Your task to perform on an android device: change the clock style Image 0: 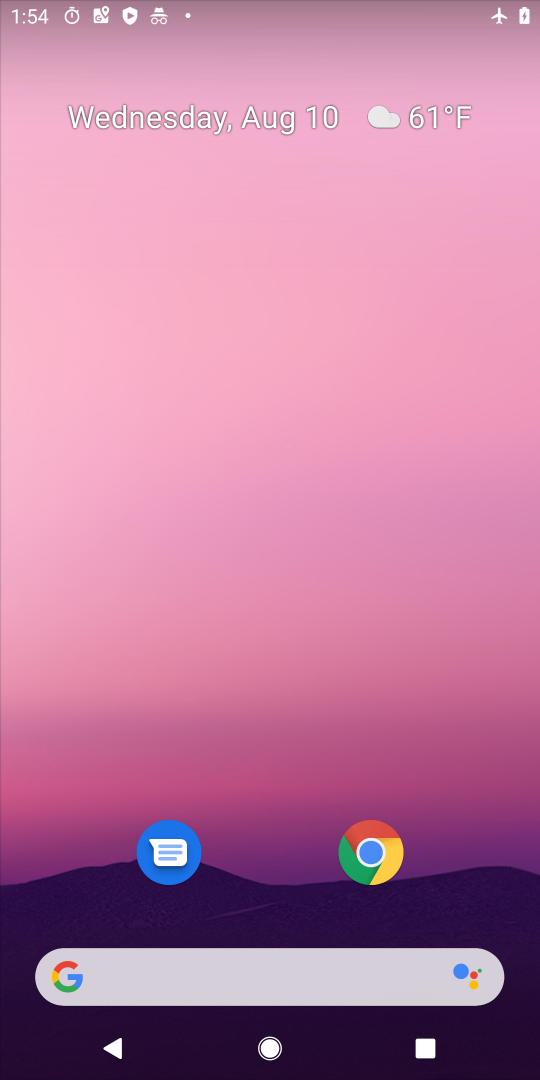
Step 0: drag from (261, 898) to (245, 54)
Your task to perform on an android device: change the clock style Image 1: 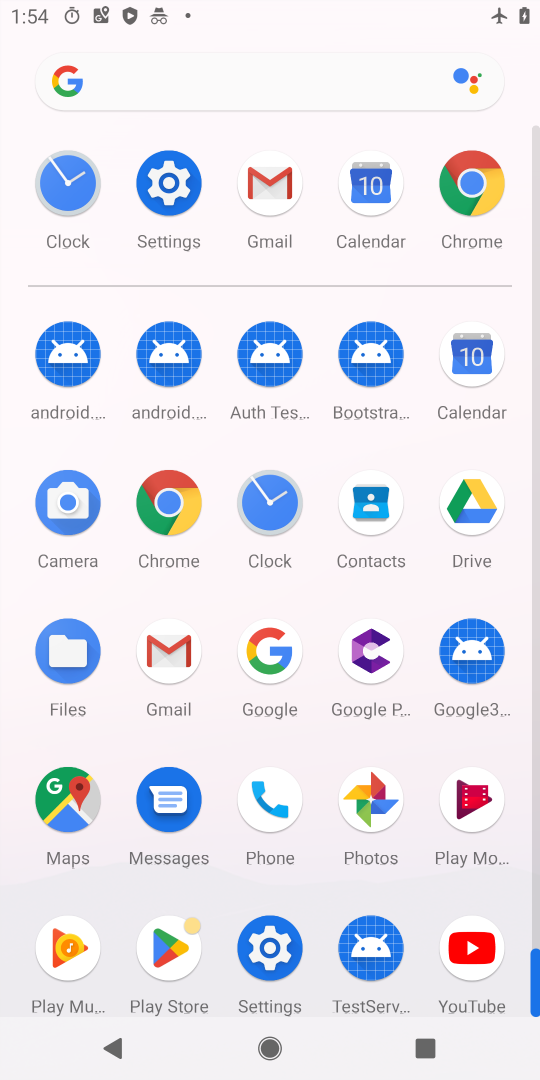
Step 1: click (275, 500)
Your task to perform on an android device: change the clock style Image 2: 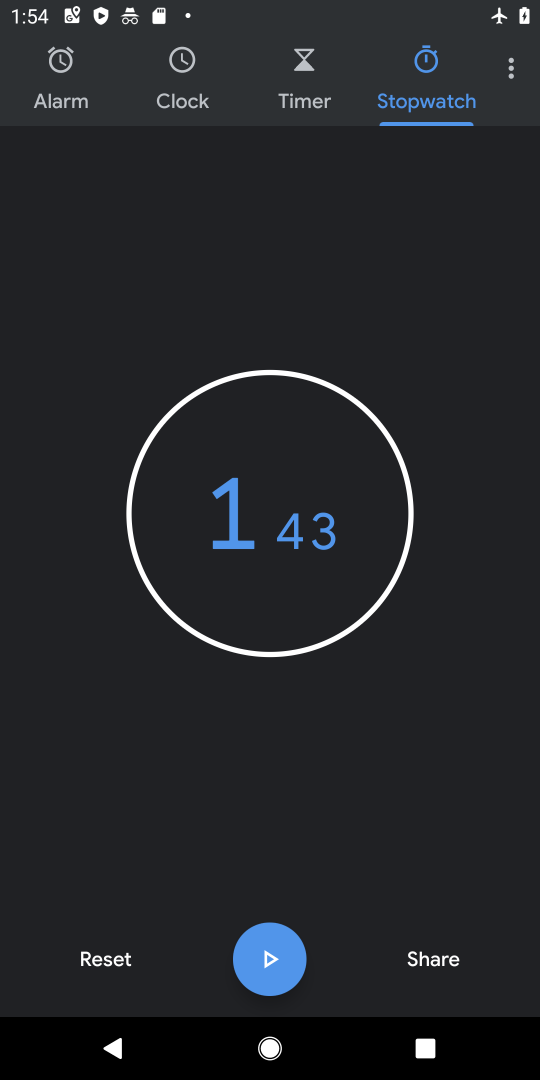
Step 2: click (509, 70)
Your task to perform on an android device: change the clock style Image 3: 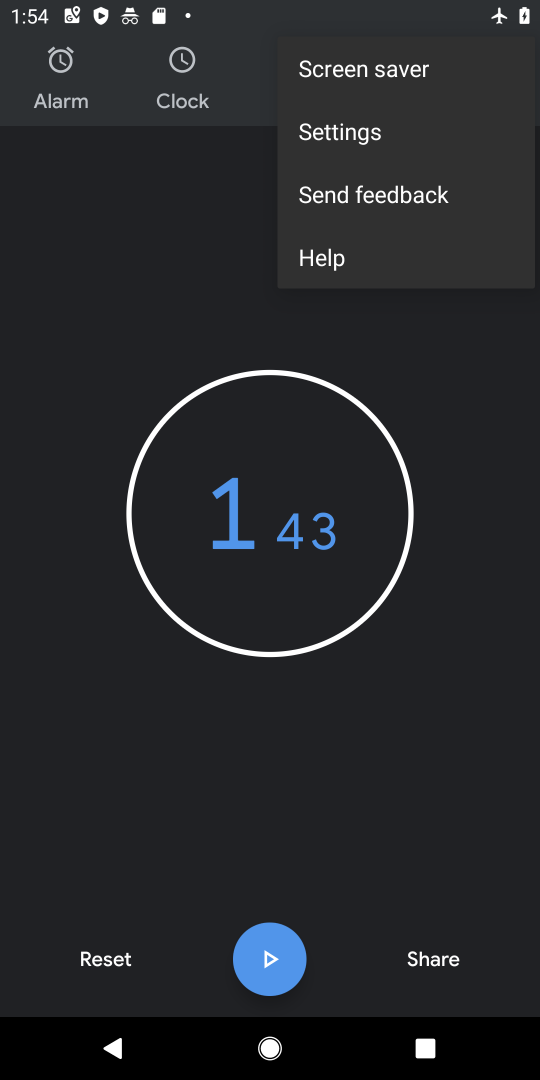
Step 3: click (349, 147)
Your task to perform on an android device: change the clock style Image 4: 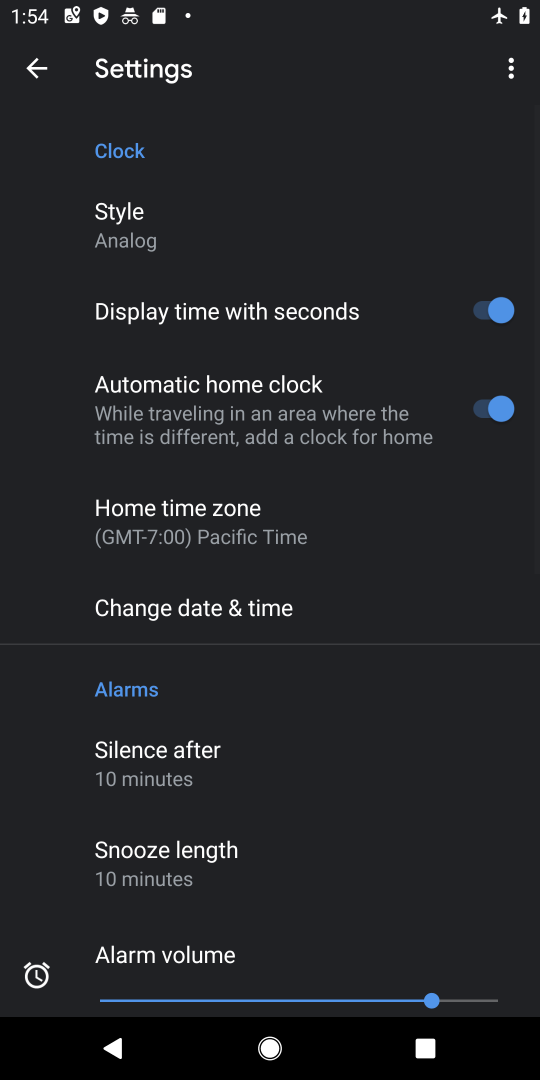
Step 4: click (148, 209)
Your task to perform on an android device: change the clock style Image 5: 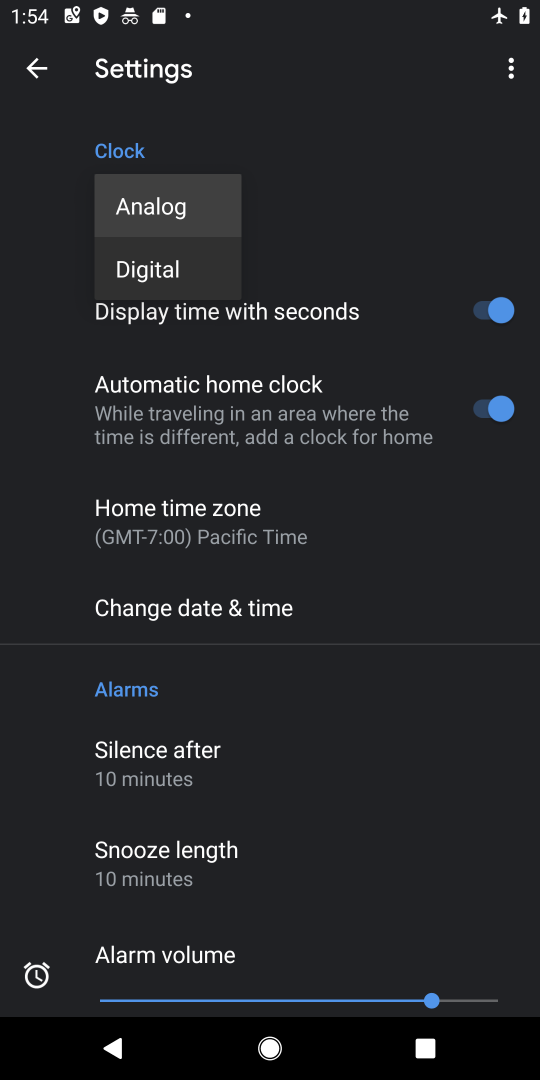
Step 5: click (152, 286)
Your task to perform on an android device: change the clock style Image 6: 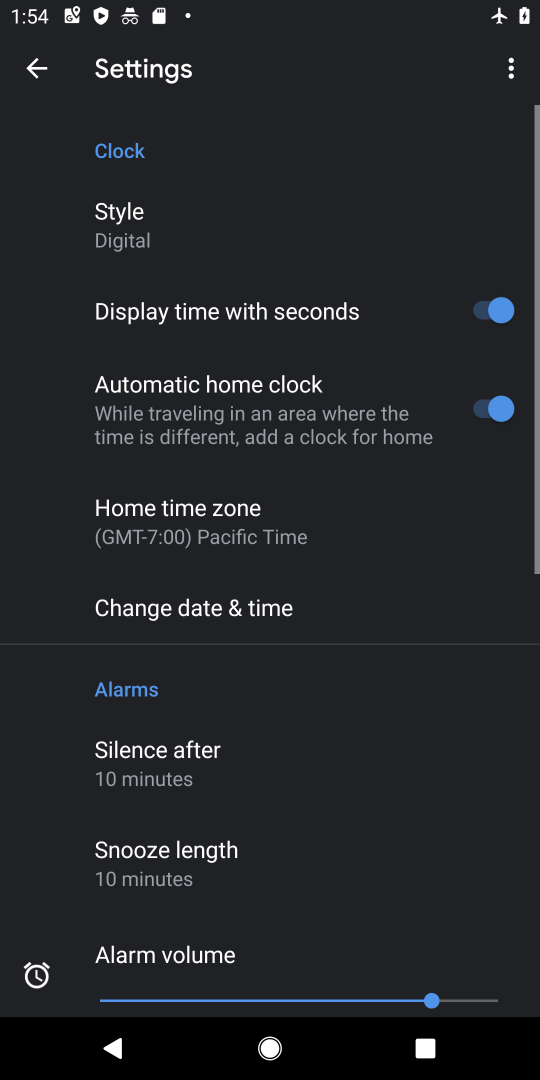
Step 6: task complete